Your task to perform on an android device: Open location settings Image 0: 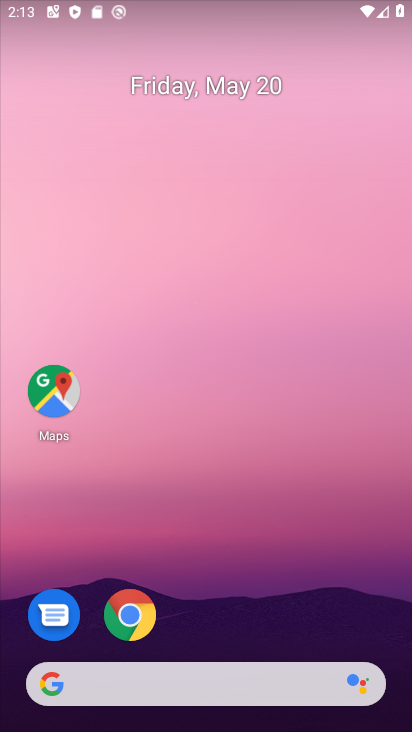
Step 0: drag from (250, 610) to (281, 270)
Your task to perform on an android device: Open location settings Image 1: 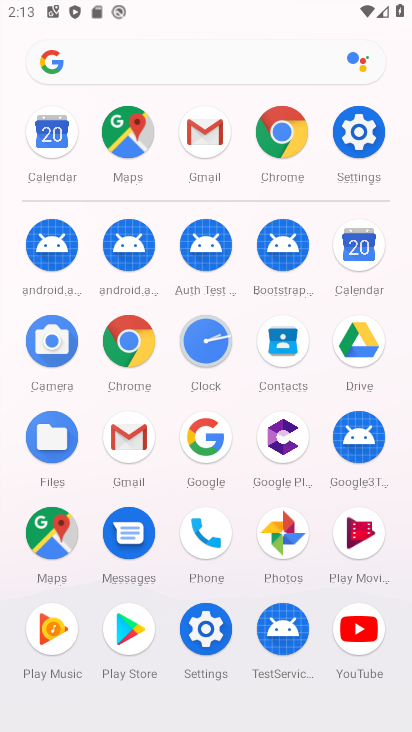
Step 1: click (354, 120)
Your task to perform on an android device: Open location settings Image 2: 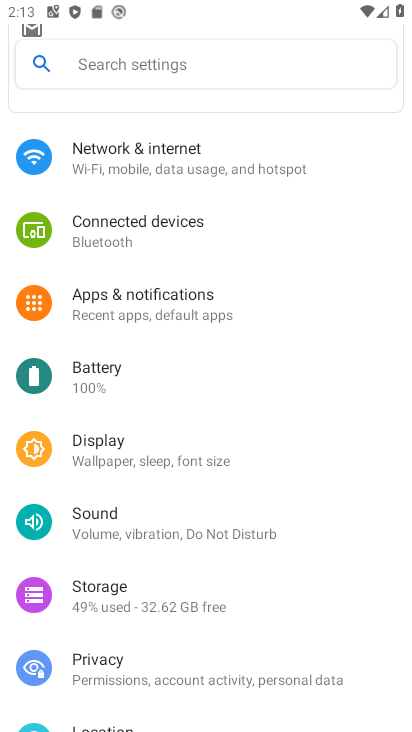
Step 2: drag from (163, 667) to (228, 445)
Your task to perform on an android device: Open location settings Image 3: 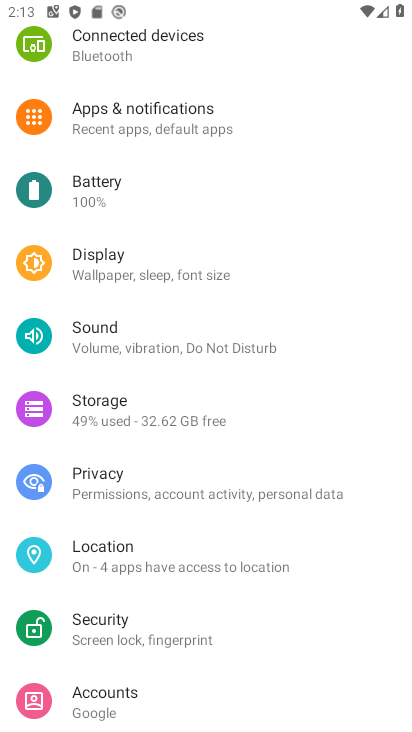
Step 3: click (166, 566)
Your task to perform on an android device: Open location settings Image 4: 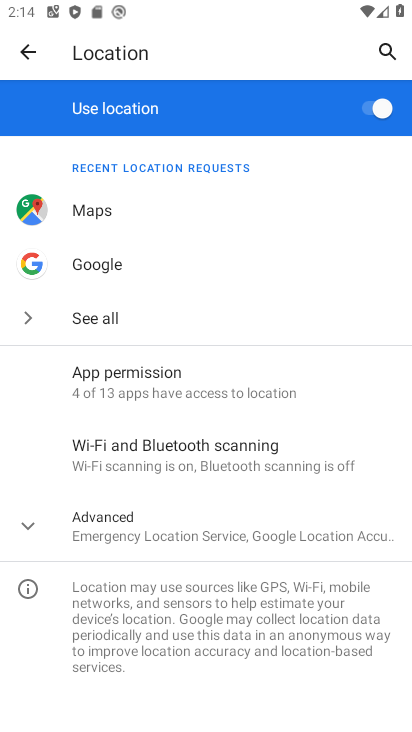
Step 4: task complete